Your task to perform on an android device: Go to display settings Image 0: 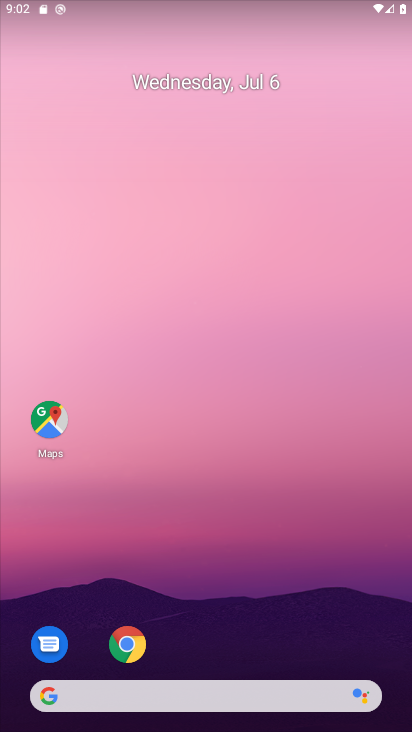
Step 0: drag from (193, 635) to (186, 169)
Your task to perform on an android device: Go to display settings Image 1: 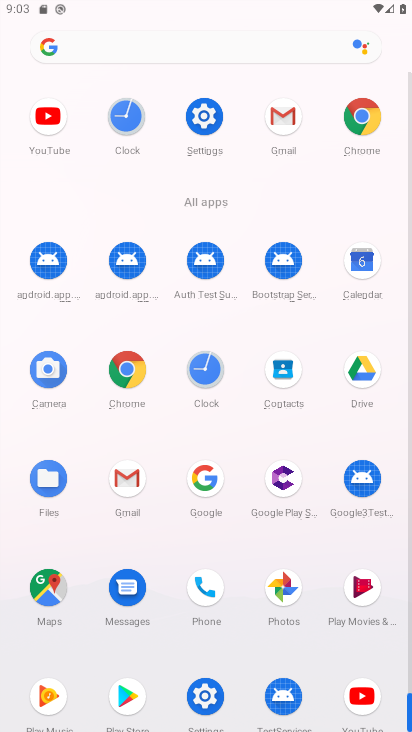
Step 1: click (208, 143)
Your task to perform on an android device: Go to display settings Image 2: 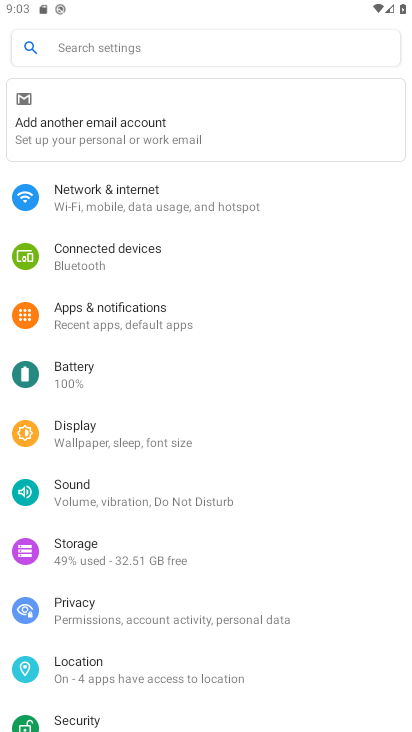
Step 2: click (159, 448)
Your task to perform on an android device: Go to display settings Image 3: 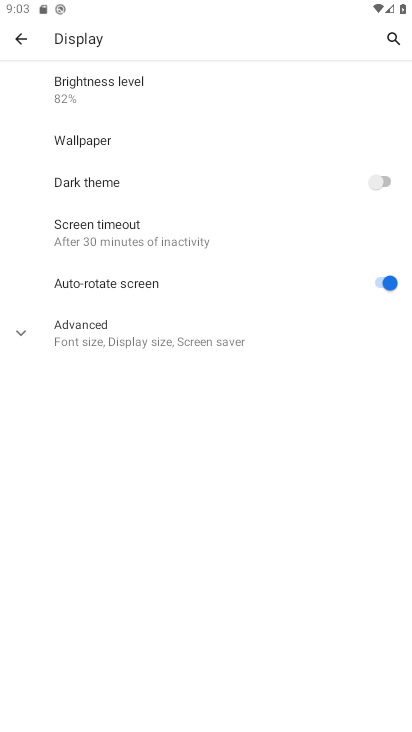
Step 3: task complete